Your task to perform on an android device: turn off airplane mode Image 0: 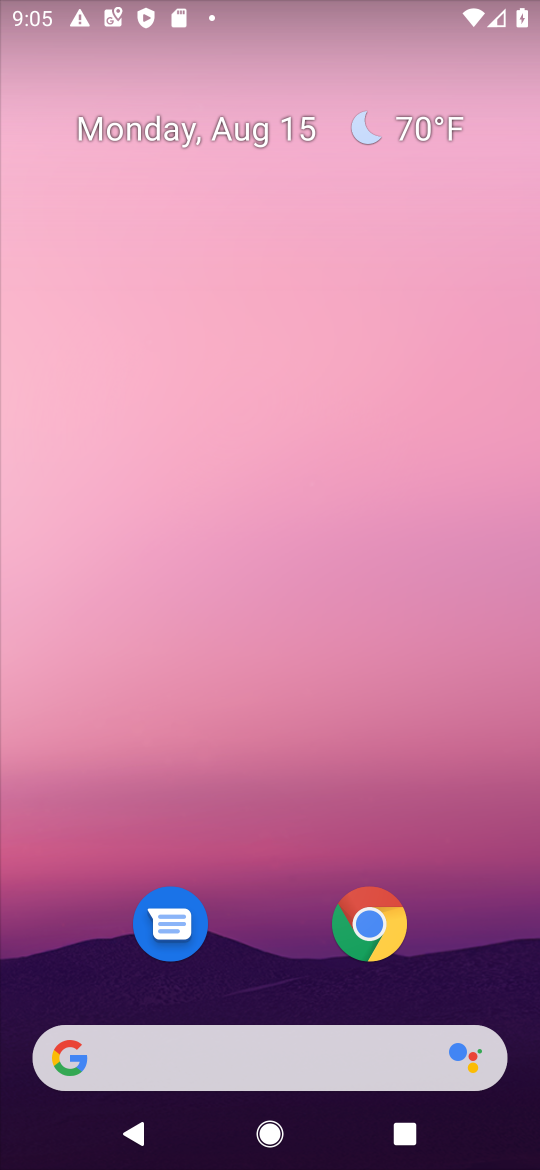
Step 0: drag from (469, 807) to (456, 115)
Your task to perform on an android device: turn off airplane mode Image 1: 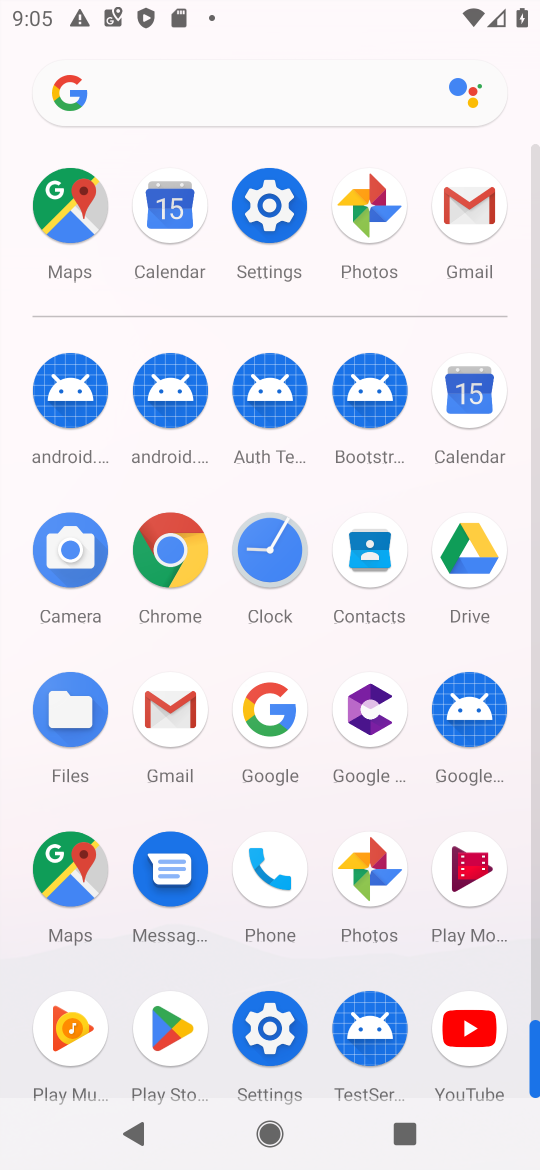
Step 1: click (271, 1027)
Your task to perform on an android device: turn off airplane mode Image 2: 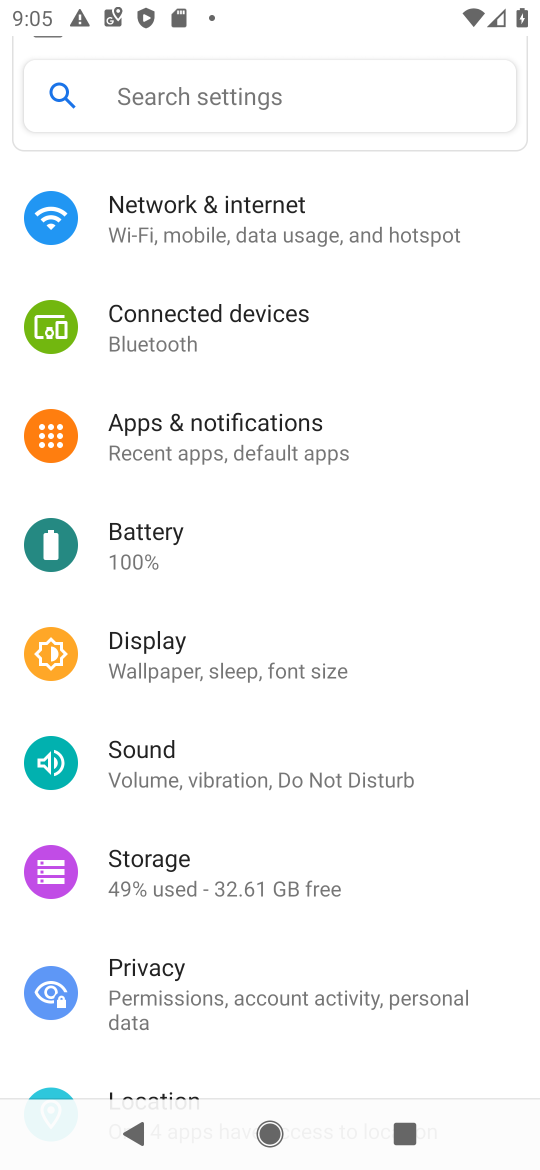
Step 2: click (173, 202)
Your task to perform on an android device: turn off airplane mode Image 3: 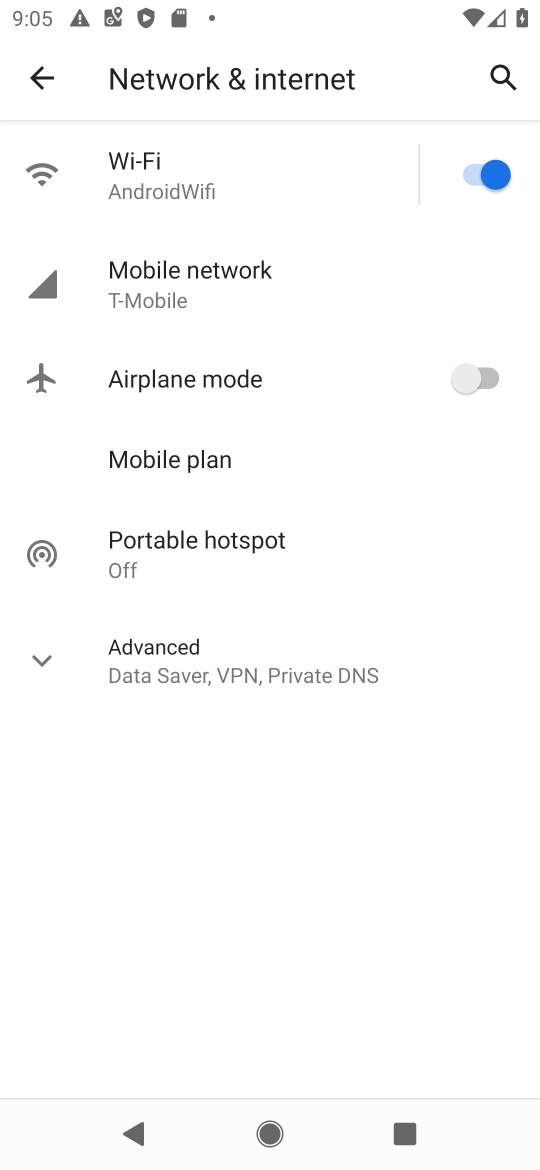
Step 3: task complete